Your task to perform on an android device: turn notification dots on Image 0: 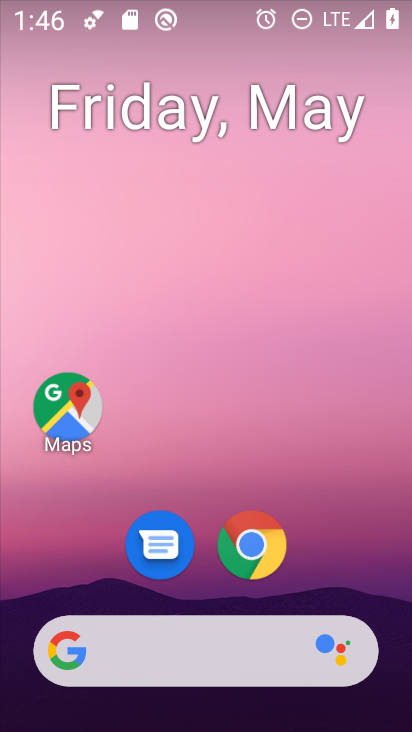
Step 0: drag from (312, 566) to (320, 212)
Your task to perform on an android device: turn notification dots on Image 1: 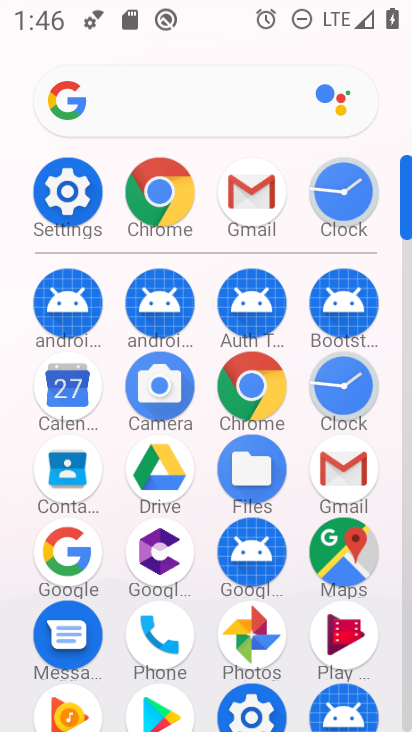
Step 1: click (61, 192)
Your task to perform on an android device: turn notification dots on Image 2: 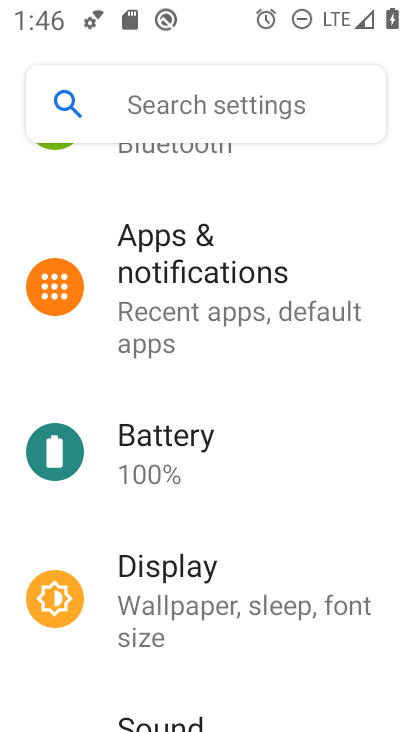
Step 2: click (186, 113)
Your task to perform on an android device: turn notification dots on Image 3: 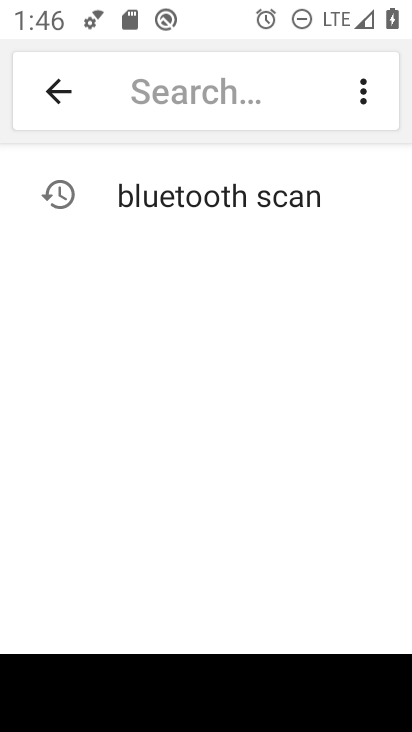
Step 3: click (168, 90)
Your task to perform on an android device: turn notification dots on Image 4: 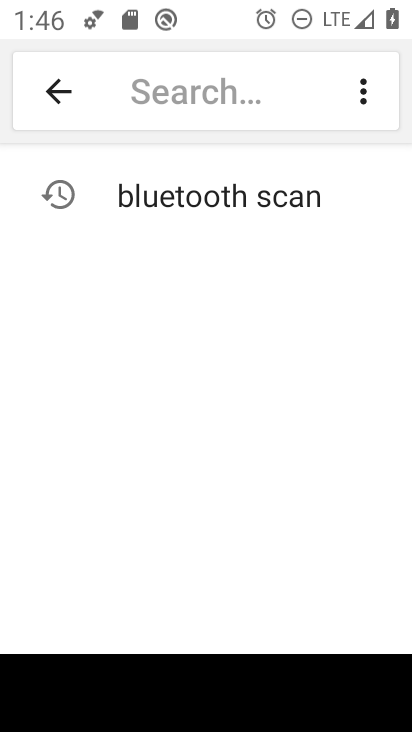
Step 4: type "notification dots"
Your task to perform on an android device: turn notification dots on Image 5: 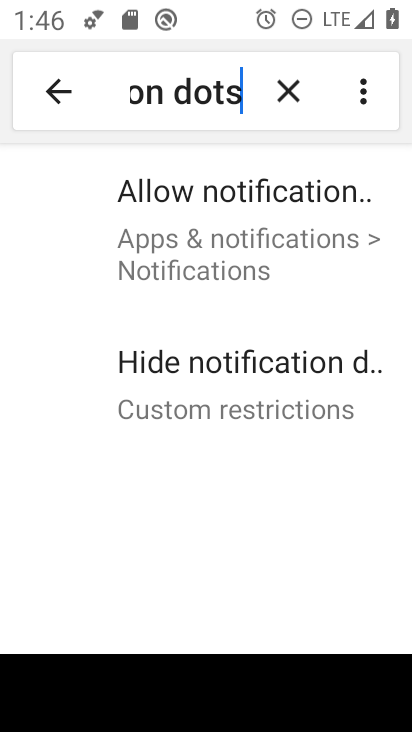
Step 5: click (281, 218)
Your task to perform on an android device: turn notification dots on Image 6: 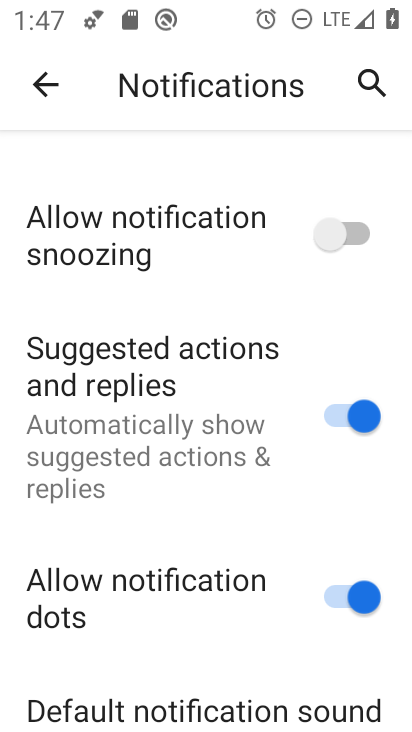
Step 6: task complete